Your task to perform on an android device: Search for pizza restaurants on Maps Image 0: 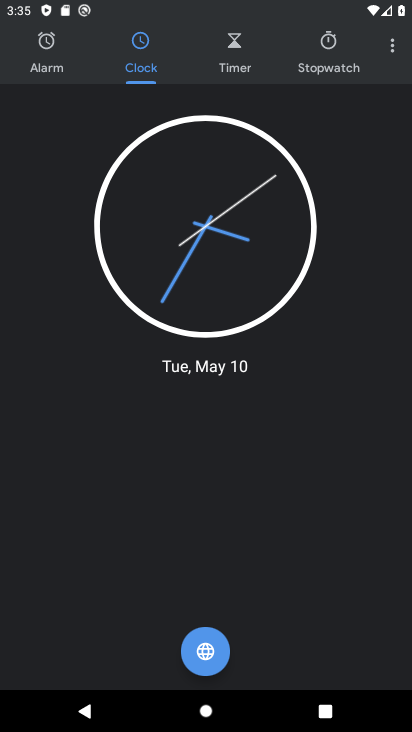
Step 0: press home button
Your task to perform on an android device: Search for pizza restaurants on Maps Image 1: 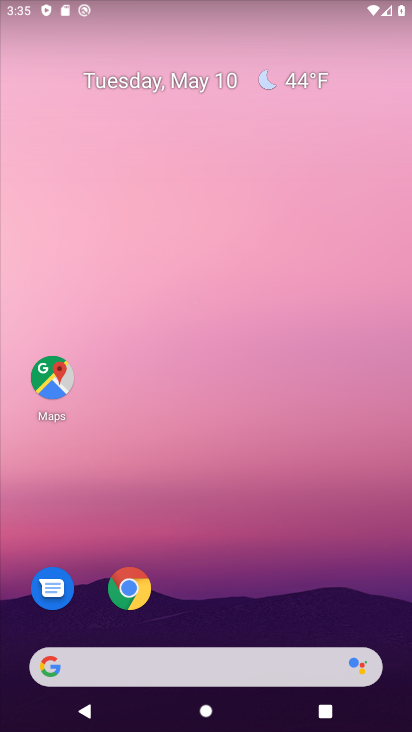
Step 1: click (53, 379)
Your task to perform on an android device: Search for pizza restaurants on Maps Image 2: 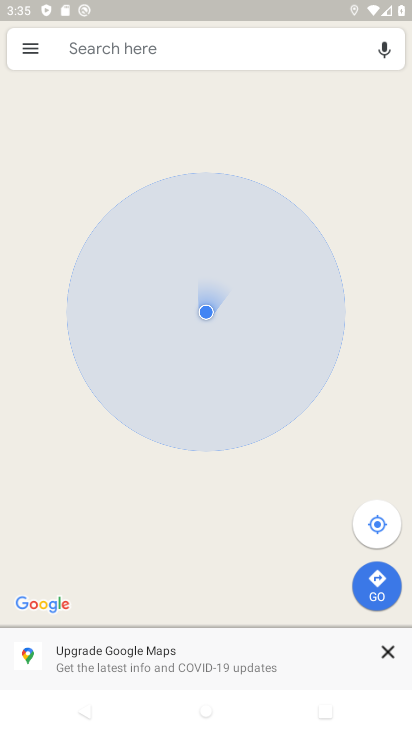
Step 2: click (225, 50)
Your task to perform on an android device: Search for pizza restaurants on Maps Image 3: 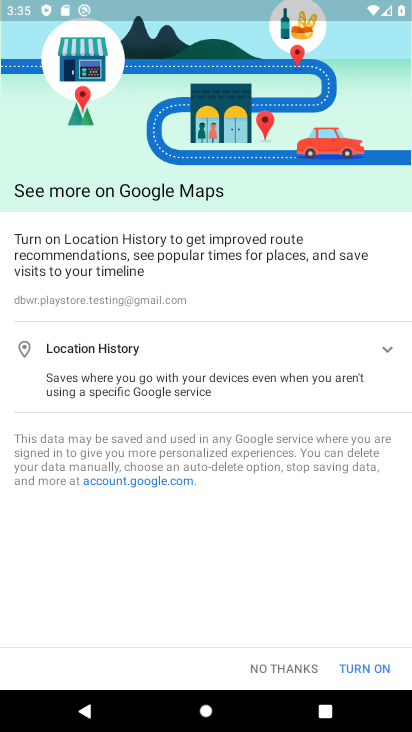
Step 3: click (300, 669)
Your task to perform on an android device: Search for pizza restaurants on Maps Image 4: 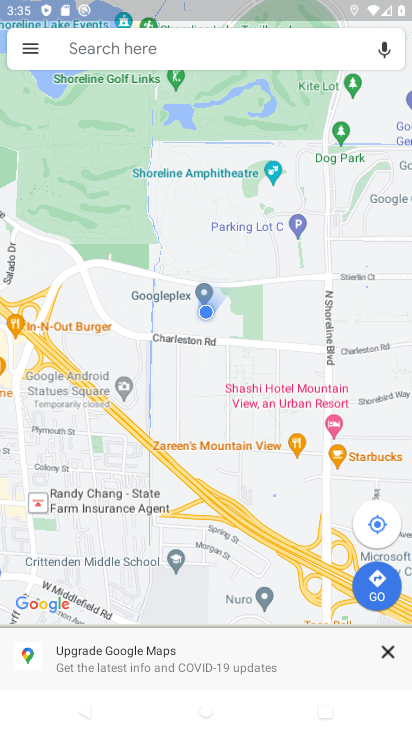
Step 4: click (176, 60)
Your task to perform on an android device: Search for pizza restaurants on Maps Image 5: 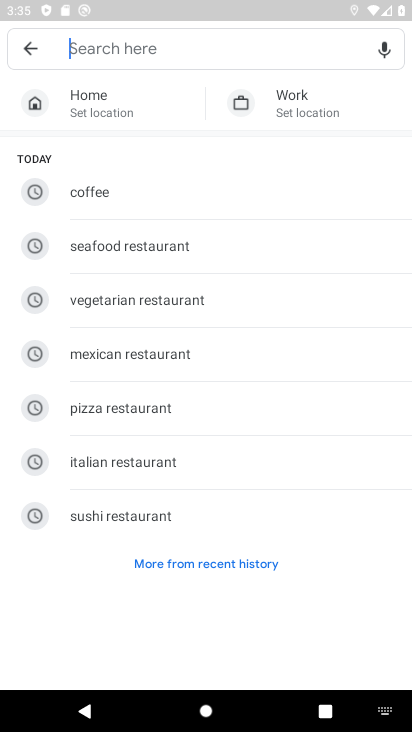
Step 5: click (134, 399)
Your task to perform on an android device: Search for pizza restaurants on Maps Image 6: 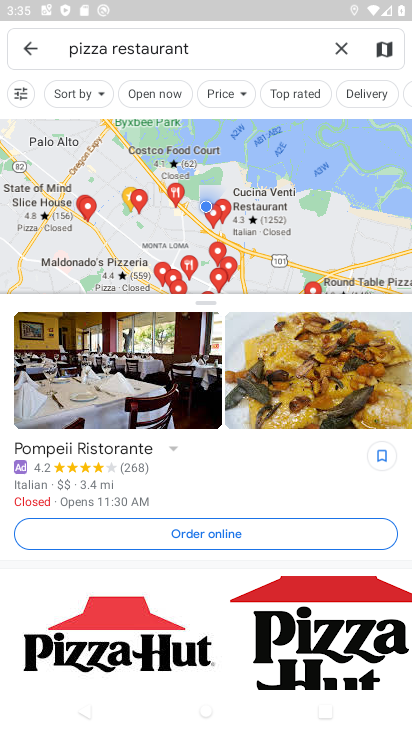
Step 6: task complete